Your task to perform on an android device: Open Chrome and go to settings Image 0: 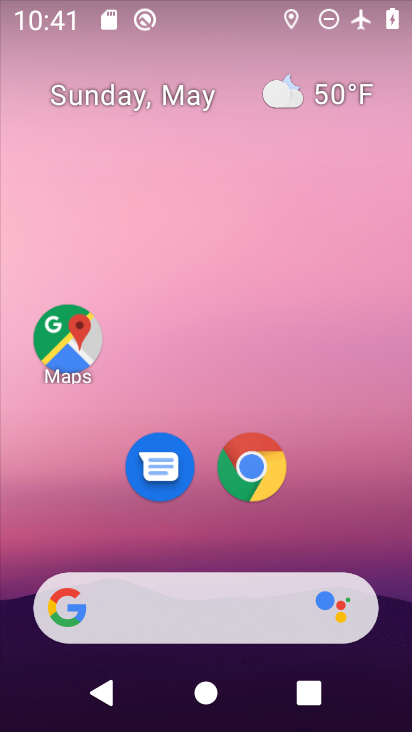
Step 0: click (252, 457)
Your task to perform on an android device: Open Chrome and go to settings Image 1: 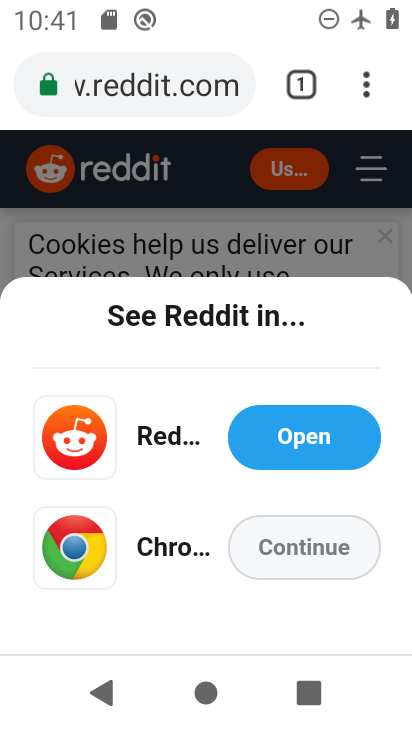
Step 1: click (282, 520)
Your task to perform on an android device: Open Chrome and go to settings Image 2: 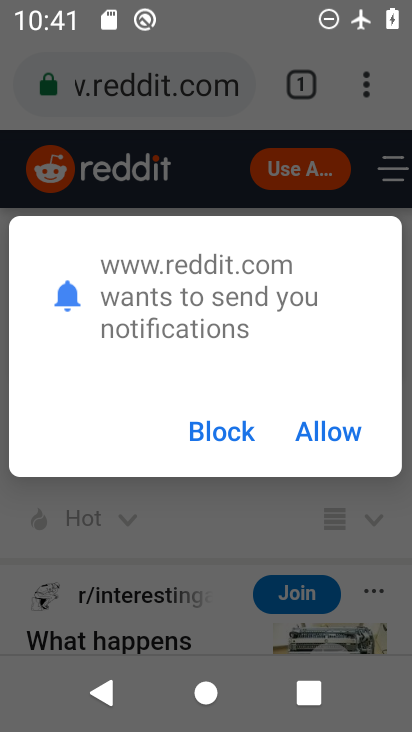
Step 2: click (344, 442)
Your task to perform on an android device: Open Chrome and go to settings Image 3: 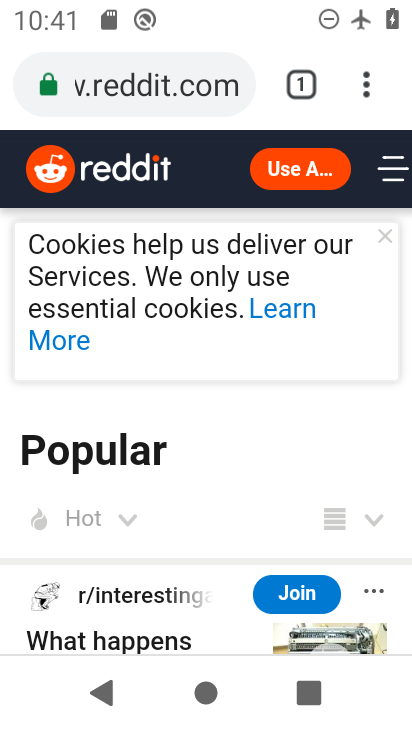
Step 3: task complete